Your task to perform on an android device: Go to ESPN.com Image 0: 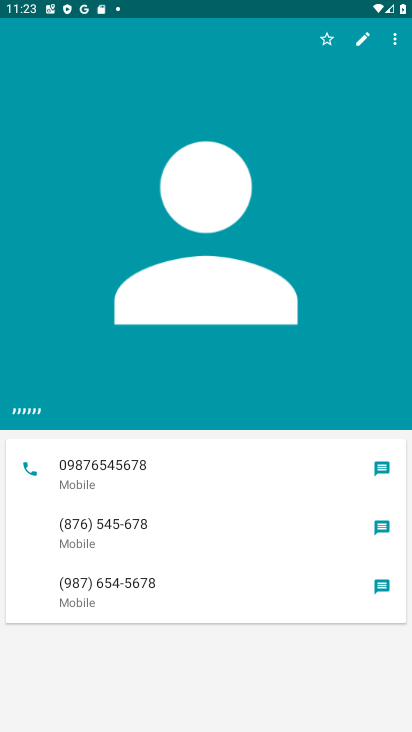
Step 0: press home button
Your task to perform on an android device: Go to ESPN.com Image 1: 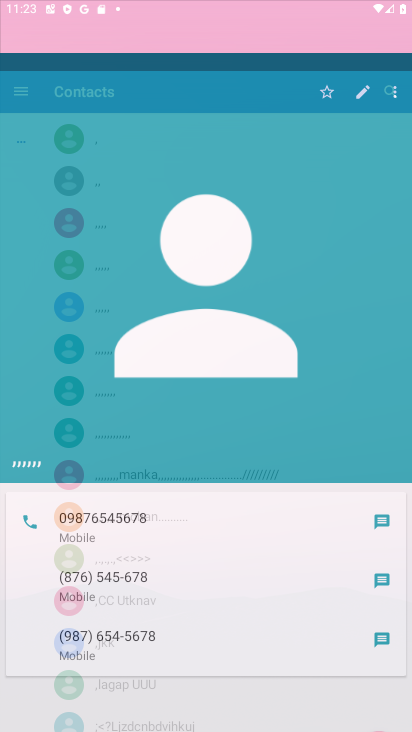
Step 1: drag from (191, 604) to (282, 280)
Your task to perform on an android device: Go to ESPN.com Image 2: 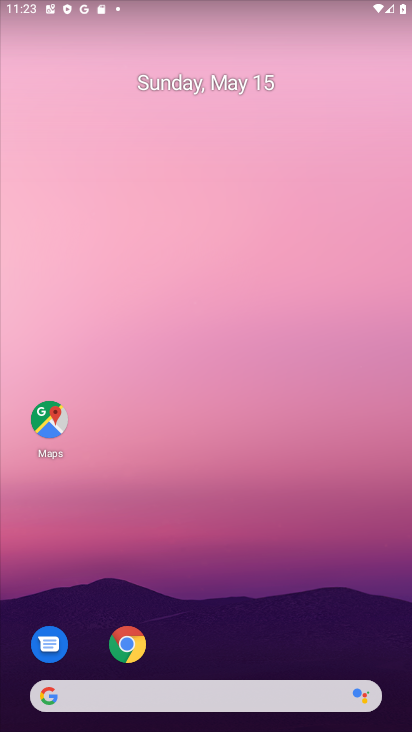
Step 2: drag from (206, 655) to (256, 348)
Your task to perform on an android device: Go to ESPN.com Image 3: 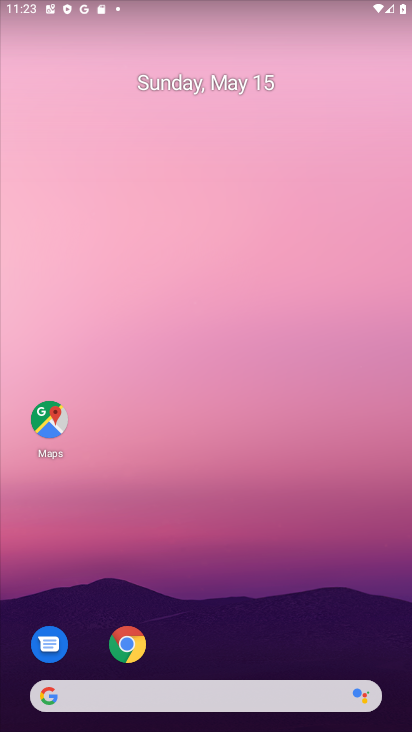
Step 3: drag from (234, 640) to (274, 19)
Your task to perform on an android device: Go to ESPN.com Image 4: 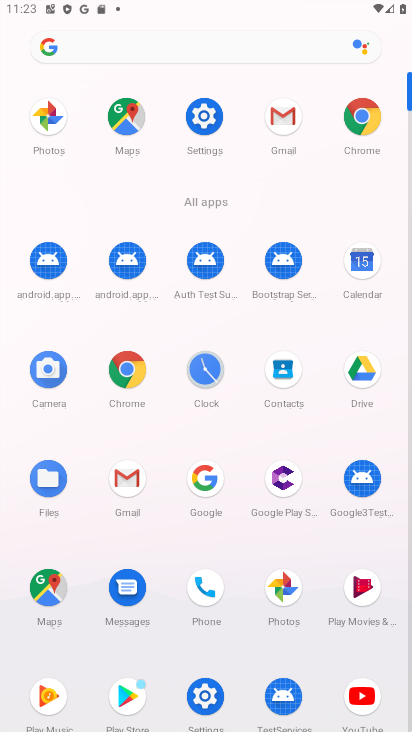
Step 4: click (361, 120)
Your task to perform on an android device: Go to ESPN.com Image 5: 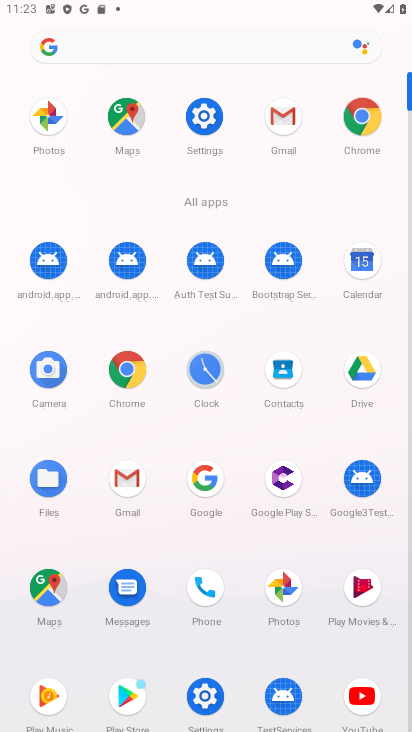
Step 5: click (361, 120)
Your task to perform on an android device: Go to ESPN.com Image 6: 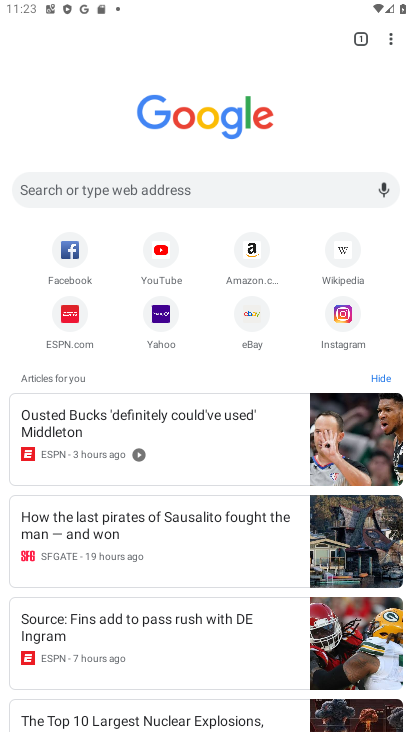
Step 6: click (382, 30)
Your task to perform on an android device: Go to ESPN.com Image 7: 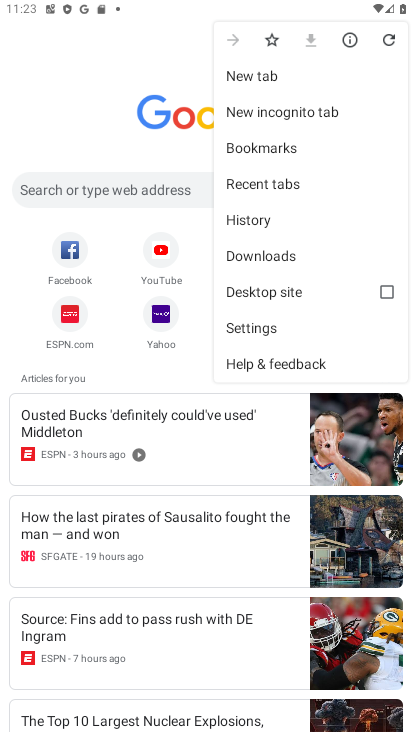
Step 7: click (251, 331)
Your task to perform on an android device: Go to ESPN.com Image 8: 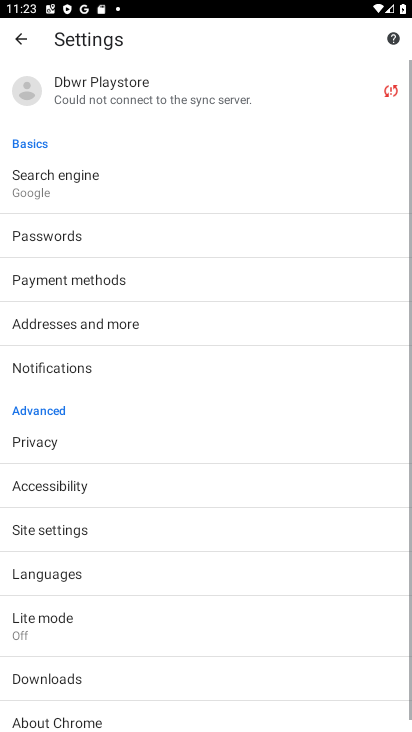
Step 8: drag from (206, 528) to (259, 147)
Your task to perform on an android device: Go to ESPN.com Image 9: 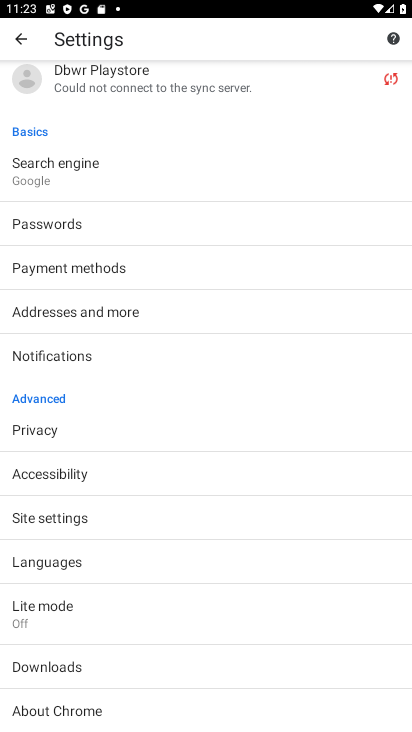
Step 9: press back button
Your task to perform on an android device: Go to ESPN.com Image 10: 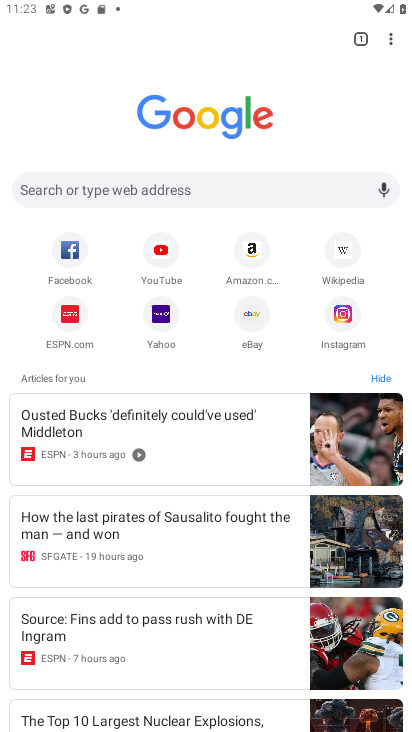
Step 10: click (88, 190)
Your task to perform on an android device: Go to ESPN.com Image 11: 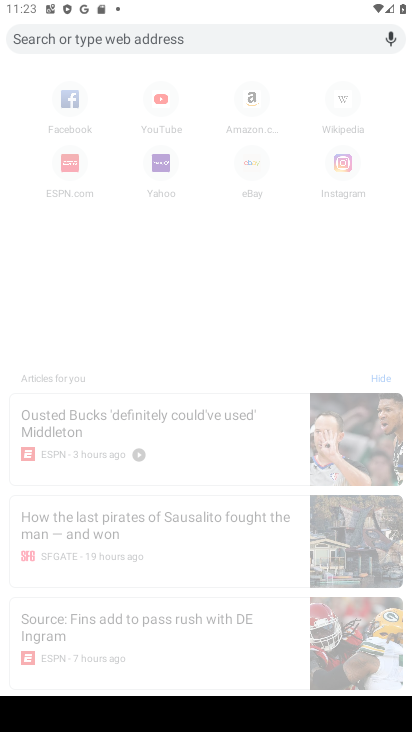
Step 11: type "espn.com"
Your task to perform on an android device: Go to ESPN.com Image 12: 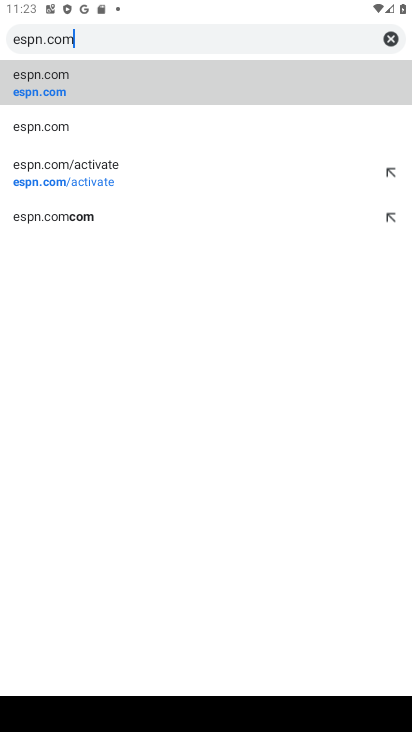
Step 12: click (36, 75)
Your task to perform on an android device: Go to ESPN.com Image 13: 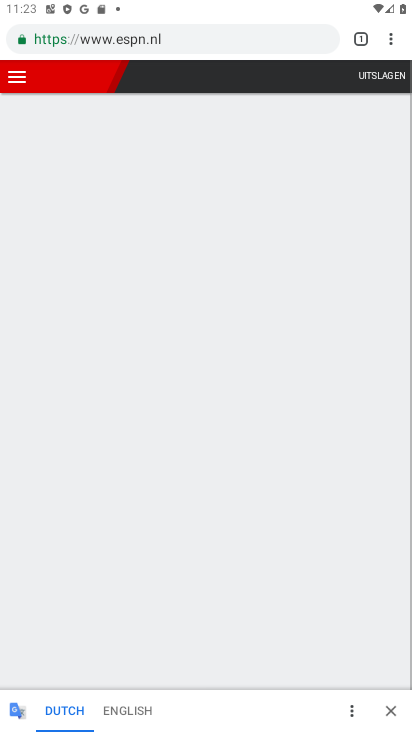
Step 13: task complete